Your task to perform on an android device: open app "Fetch Rewards" Image 0: 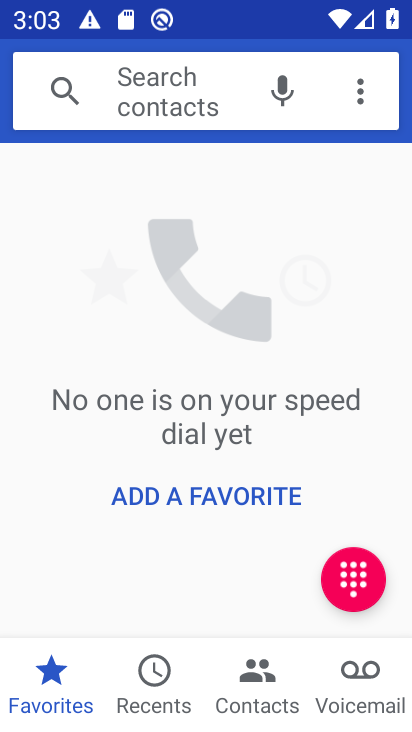
Step 0: click (395, 570)
Your task to perform on an android device: open app "Fetch Rewards" Image 1: 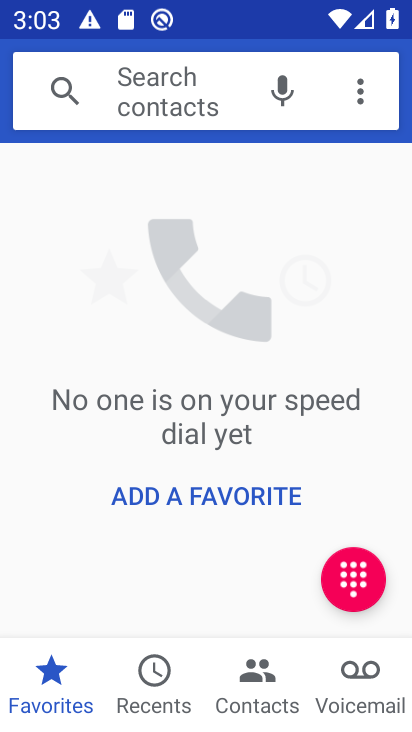
Step 1: press home button
Your task to perform on an android device: open app "Fetch Rewards" Image 2: 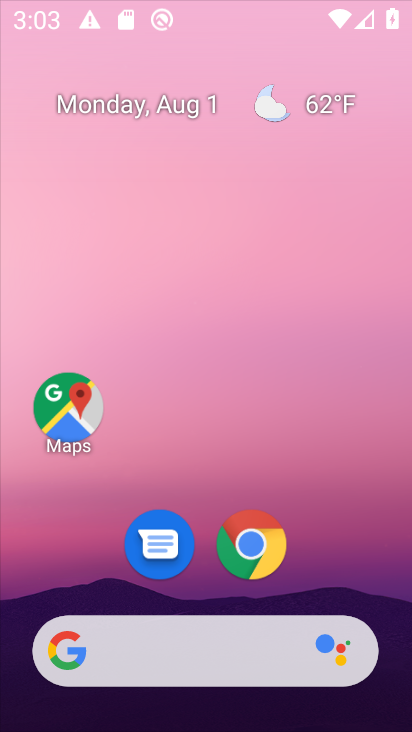
Step 2: drag from (362, 645) to (262, 92)
Your task to perform on an android device: open app "Fetch Rewards" Image 3: 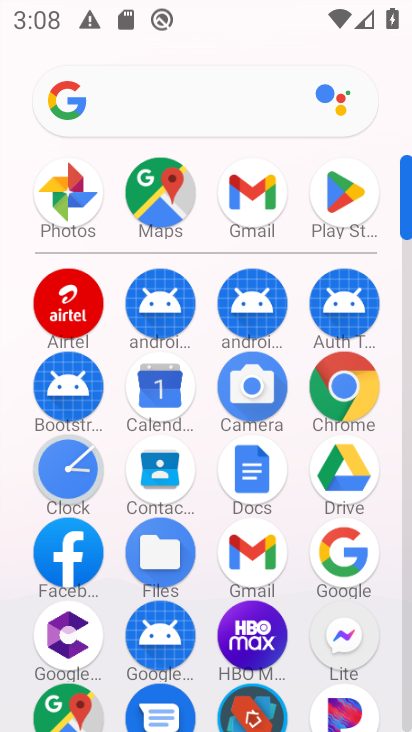
Step 3: click (347, 195)
Your task to perform on an android device: open app "Fetch Rewards" Image 4: 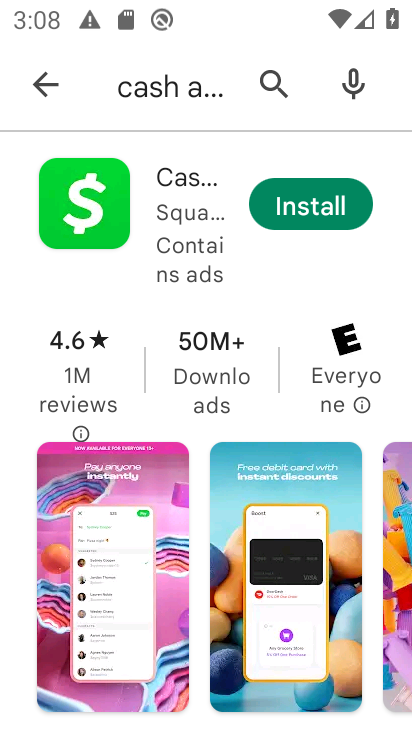
Step 4: press back button
Your task to perform on an android device: open app "Fetch Rewards" Image 5: 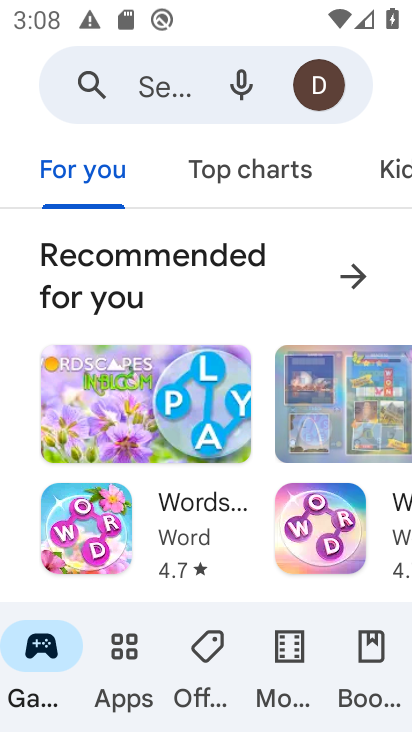
Step 5: click (140, 86)
Your task to perform on an android device: open app "Fetch Rewards" Image 6: 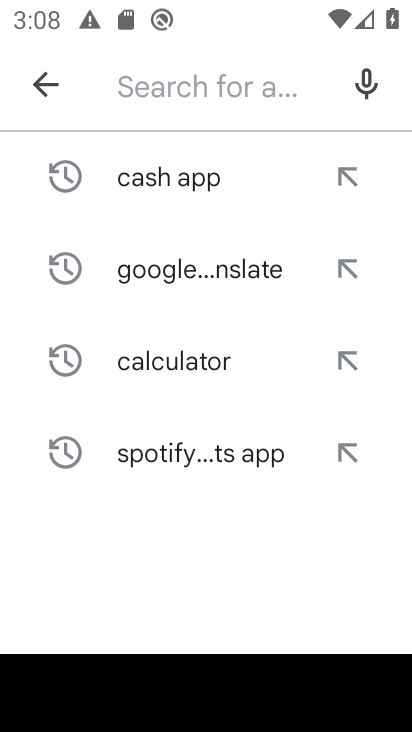
Step 6: type "Fetch Rewards"
Your task to perform on an android device: open app "Fetch Rewards" Image 7: 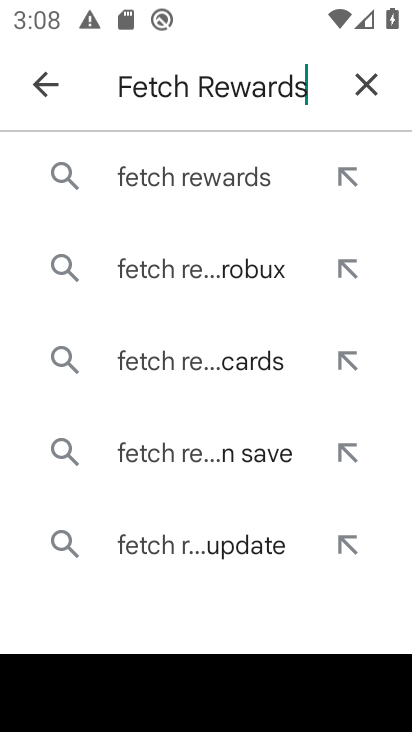
Step 7: click (162, 184)
Your task to perform on an android device: open app "Fetch Rewards" Image 8: 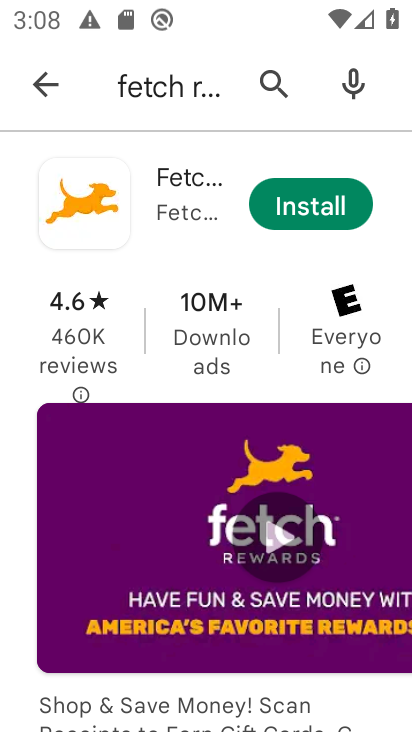
Step 8: task complete